Your task to perform on an android device: find photos in the google photos app Image 0: 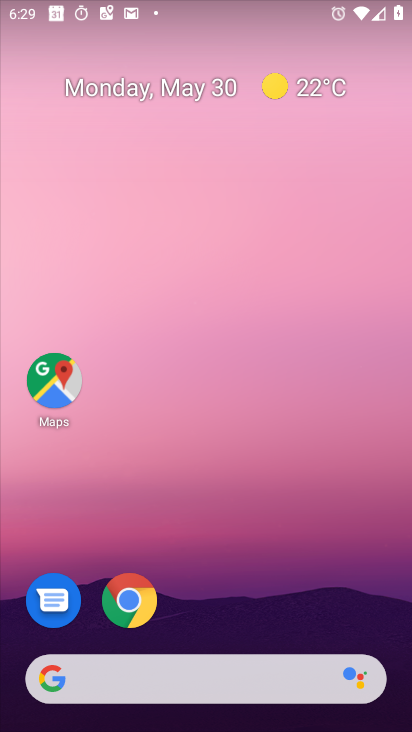
Step 0: press home button
Your task to perform on an android device: find photos in the google photos app Image 1: 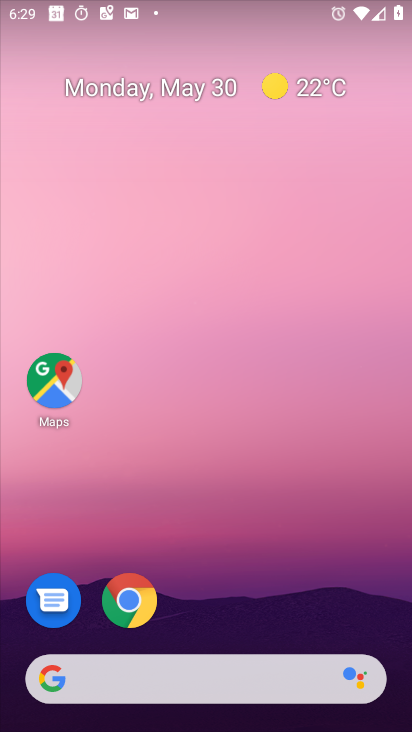
Step 1: drag from (287, 630) to (275, 252)
Your task to perform on an android device: find photos in the google photos app Image 2: 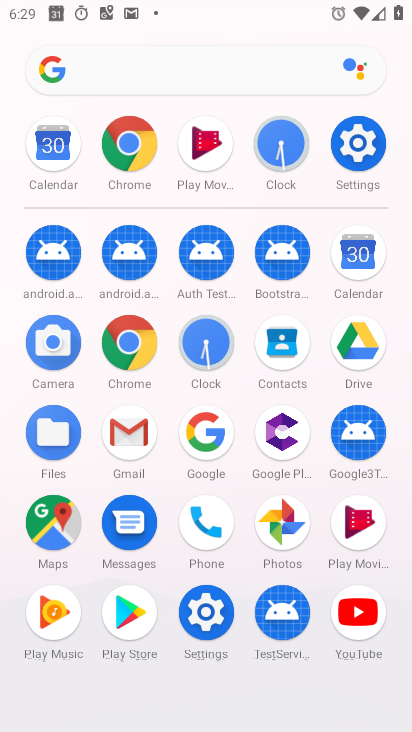
Step 2: click (278, 511)
Your task to perform on an android device: find photos in the google photos app Image 3: 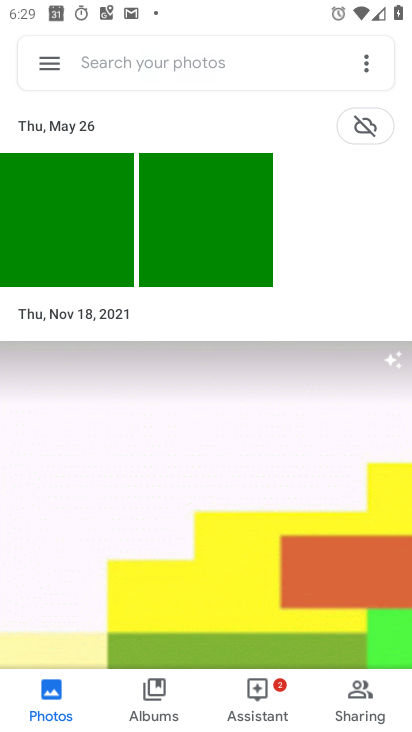
Step 3: click (58, 722)
Your task to perform on an android device: find photos in the google photos app Image 4: 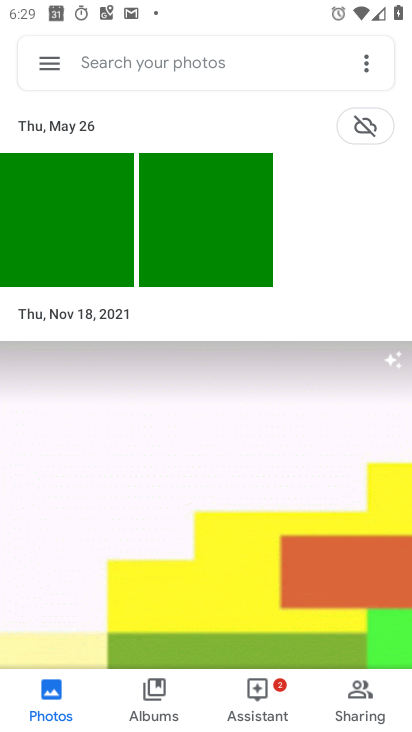
Step 4: task complete